Your task to perform on an android device: open a bookmark in the chrome app Image 0: 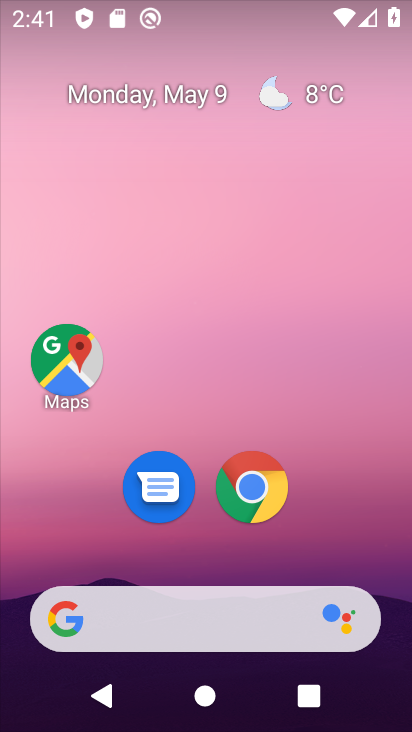
Step 0: click (249, 478)
Your task to perform on an android device: open a bookmark in the chrome app Image 1: 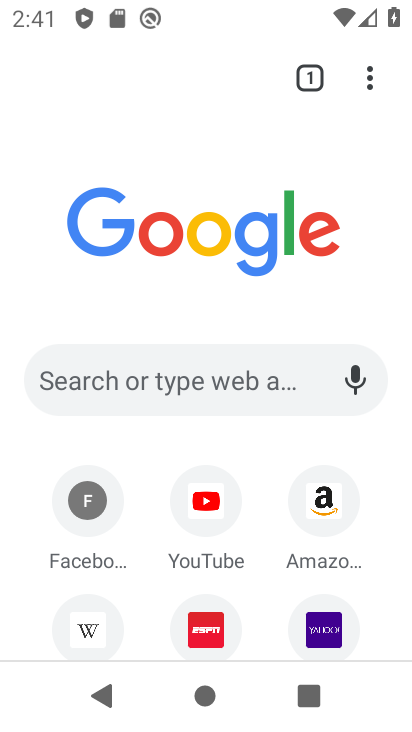
Step 1: click (365, 81)
Your task to perform on an android device: open a bookmark in the chrome app Image 2: 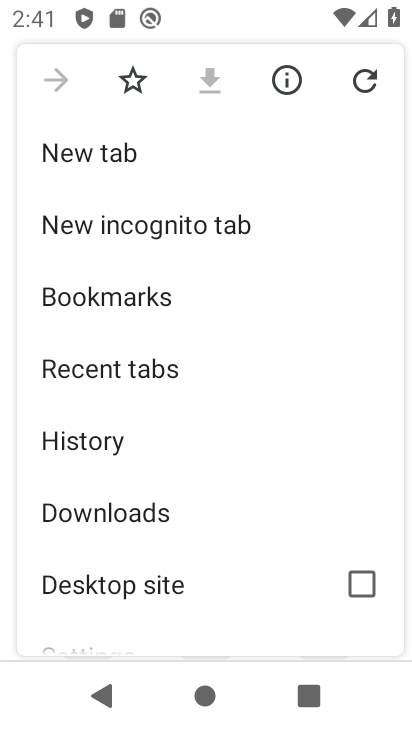
Step 2: click (179, 293)
Your task to perform on an android device: open a bookmark in the chrome app Image 3: 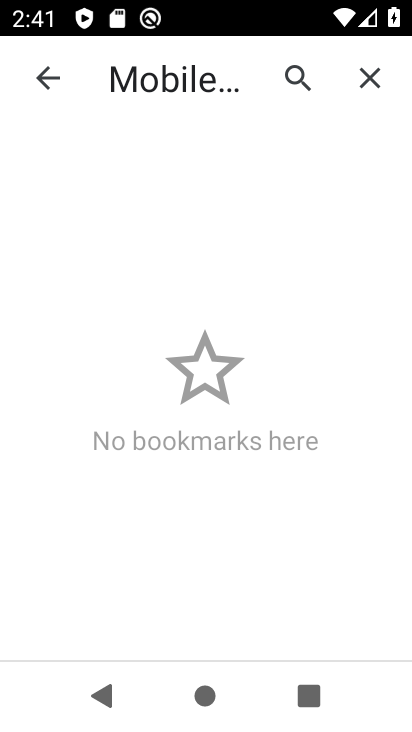
Step 3: task complete